Your task to perform on an android device: turn on sleep mode Image 0: 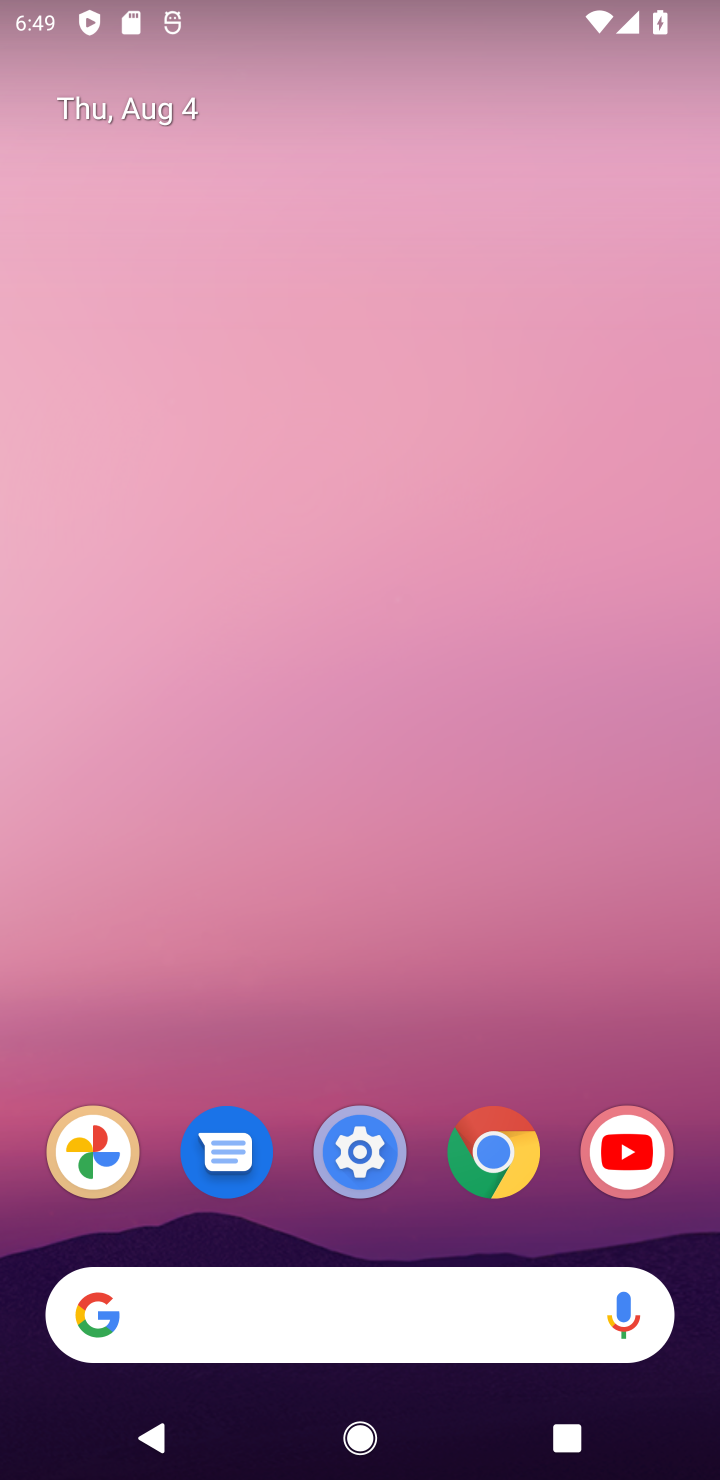
Step 0: drag from (223, 981) to (615, 240)
Your task to perform on an android device: turn on sleep mode Image 1: 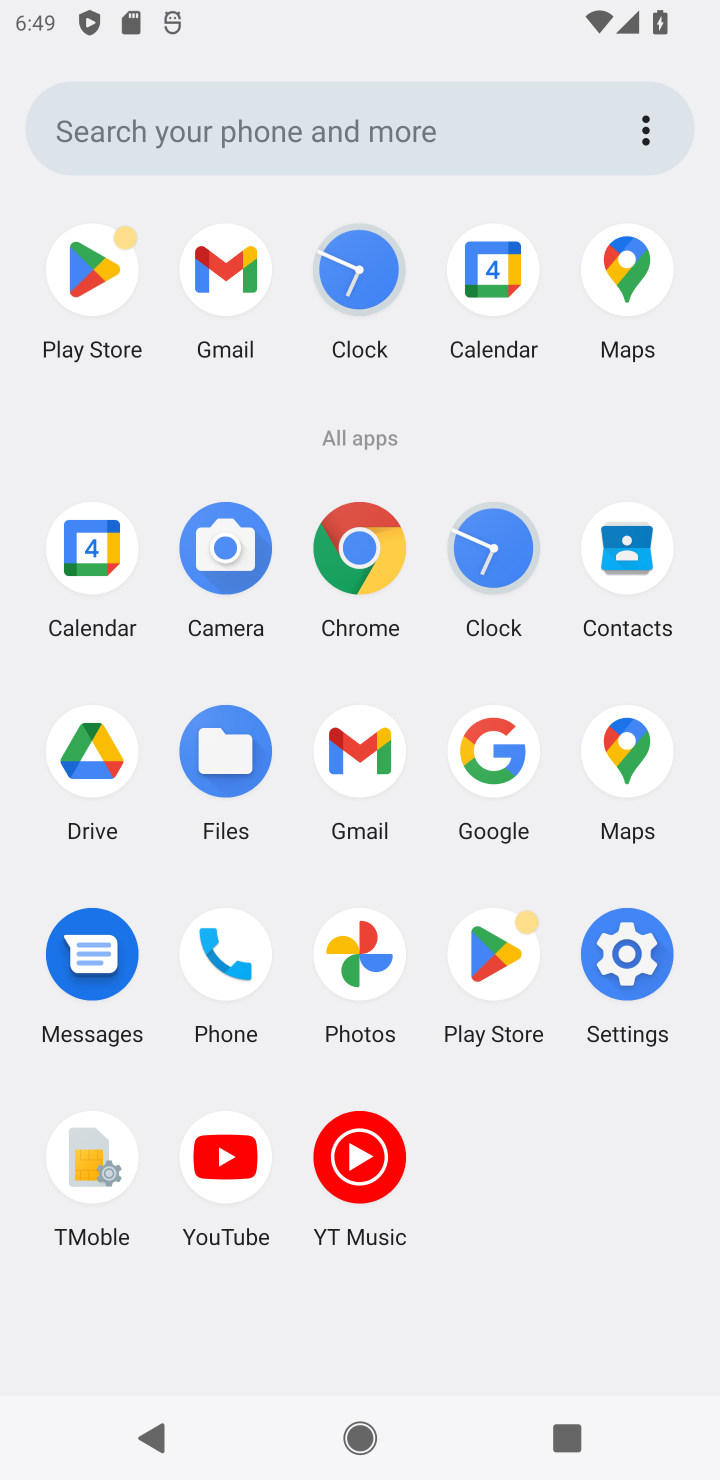
Step 1: click (595, 972)
Your task to perform on an android device: turn on sleep mode Image 2: 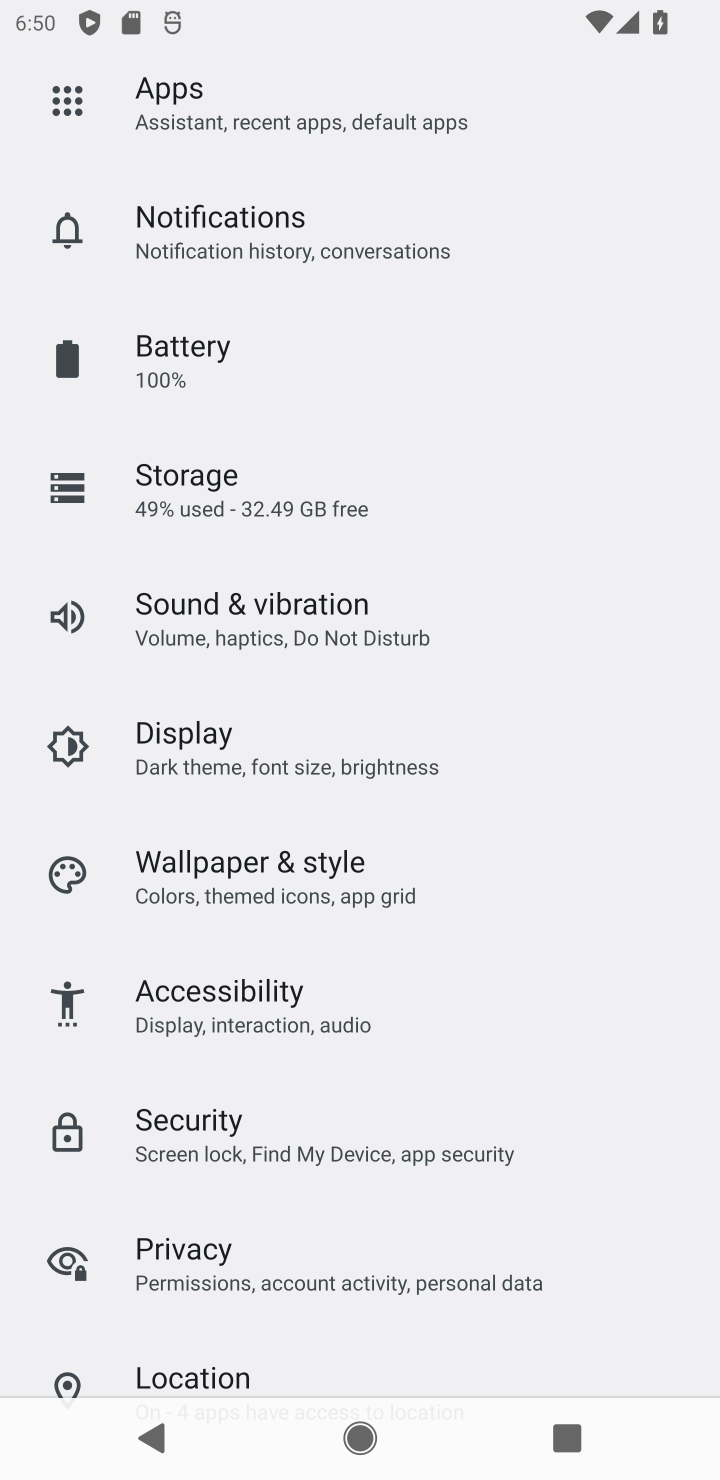
Step 2: task complete